Your task to perform on an android device: toggle javascript in the chrome app Image 0: 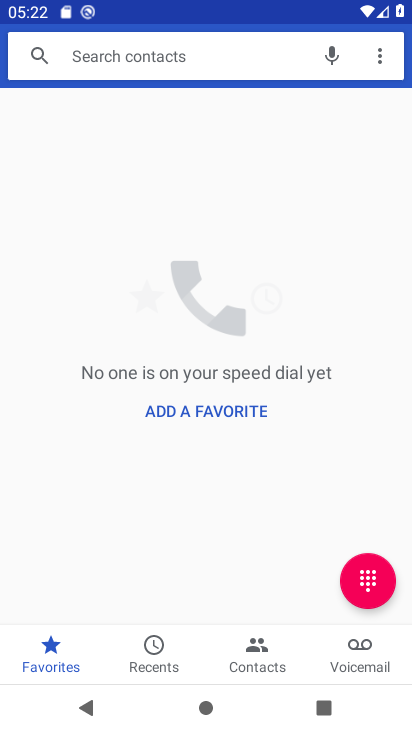
Step 0: press home button
Your task to perform on an android device: toggle javascript in the chrome app Image 1: 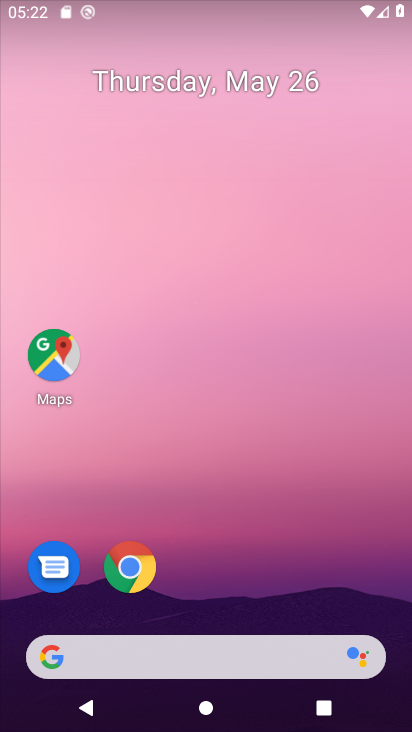
Step 1: drag from (339, 563) to (358, 152)
Your task to perform on an android device: toggle javascript in the chrome app Image 2: 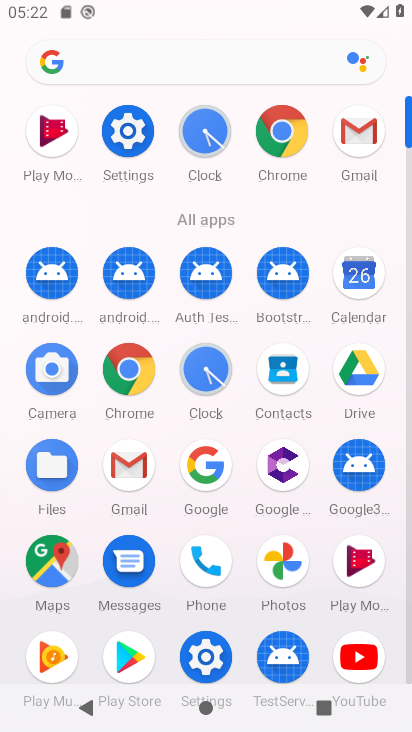
Step 2: click (281, 125)
Your task to perform on an android device: toggle javascript in the chrome app Image 3: 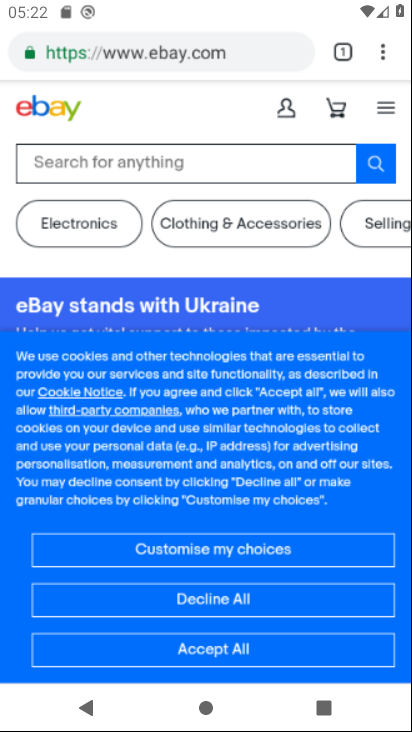
Step 3: click (386, 105)
Your task to perform on an android device: toggle javascript in the chrome app Image 4: 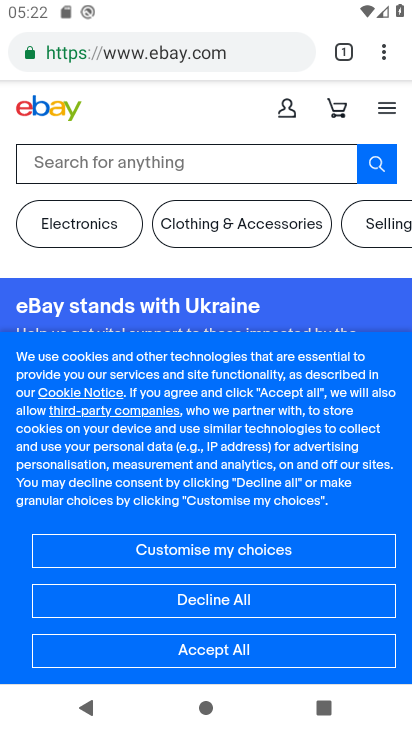
Step 4: click (386, 108)
Your task to perform on an android device: toggle javascript in the chrome app Image 5: 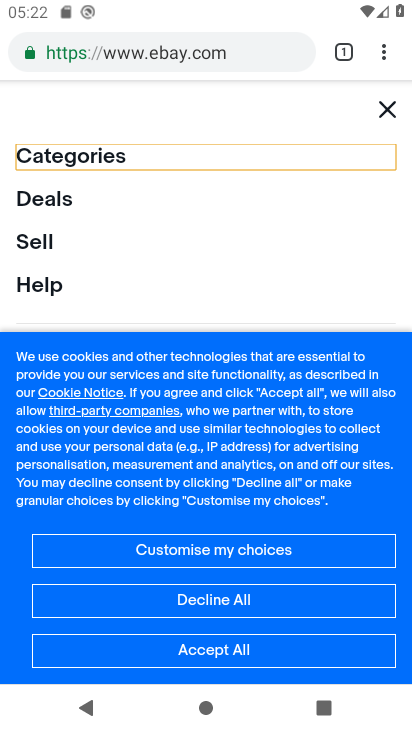
Step 5: click (385, 103)
Your task to perform on an android device: toggle javascript in the chrome app Image 6: 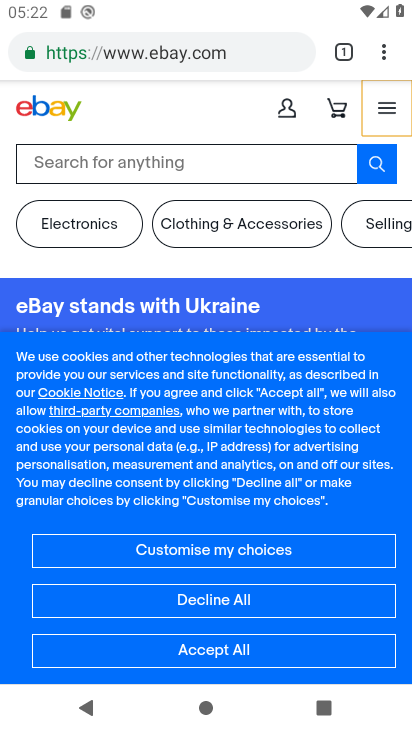
Step 6: click (385, 51)
Your task to perform on an android device: toggle javascript in the chrome app Image 7: 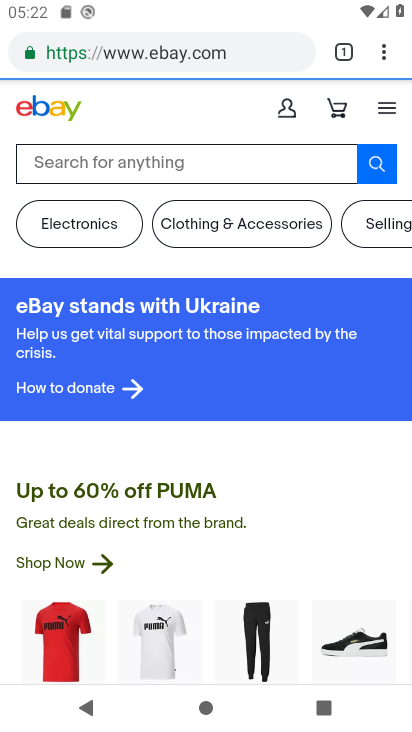
Step 7: click (384, 56)
Your task to perform on an android device: toggle javascript in the chrome app Image 8: 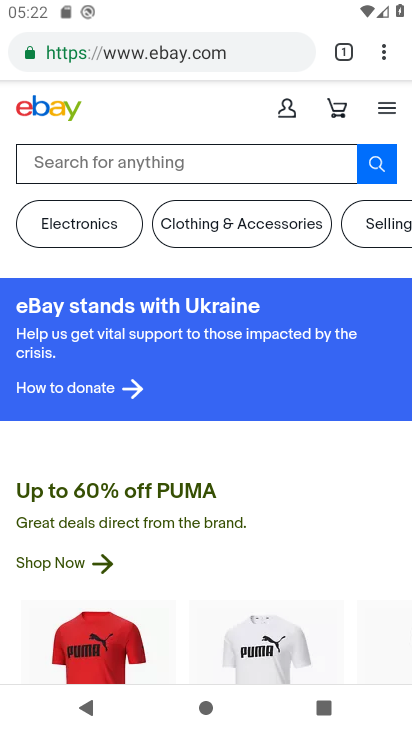
Step 8: drag from (384, 56) to (219, 591)
Your task to perform on an android device: toggle javascript in the chrome app Image 9: 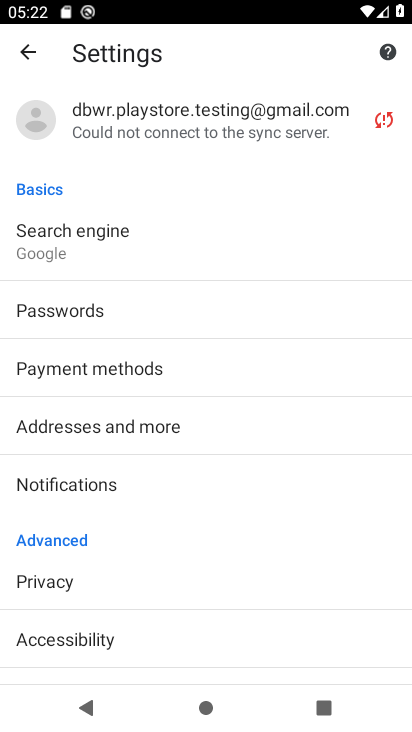
Step 9: drag from (243, 617) to (270, 355)
Your task to perform on an android device: toggle javascript in the chrome app Image 10: 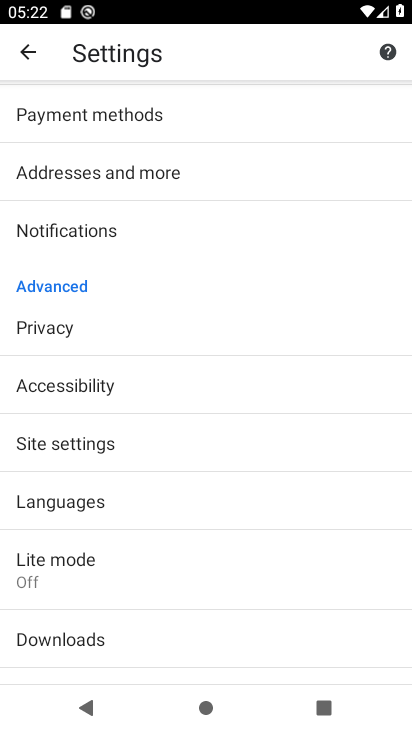
Step 10: click (78, 445)
Your task to perform on an android device: toggle javascript in the chrome app Image 11: 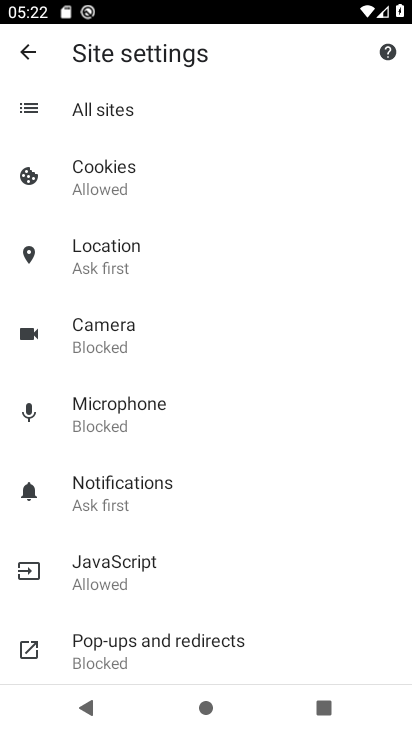
Step 11: click (160, 561)
Your task to perform on an android device: toggle javascript in the chrome app Image 12: 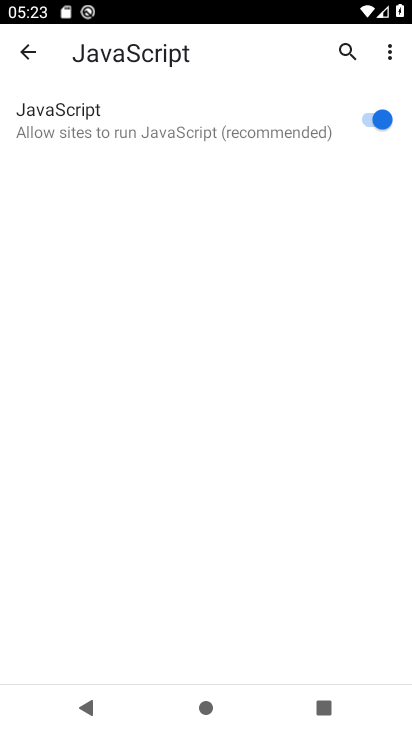
Step 12: click (373, 108)
Your task to perform on an android device: toggle javascript in the chrome app Image 13: 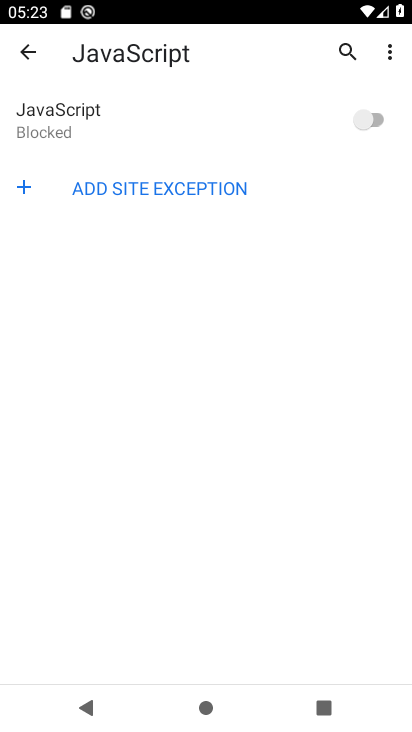
Step 13: task complete